Your task to perform on an android device: Do I have any events this weekend? Image 0: 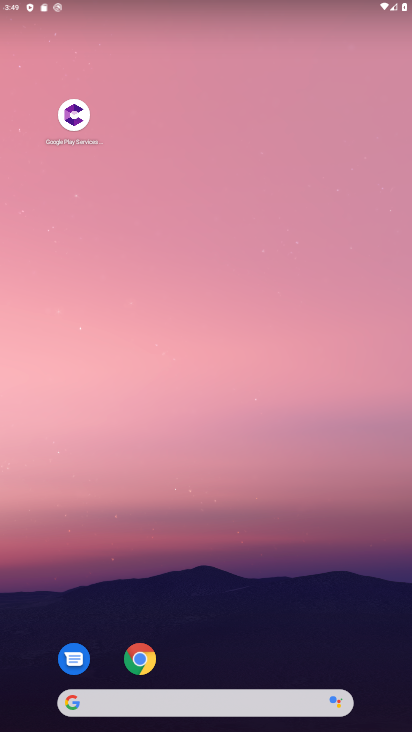
Step 0: drag from (104, 501) to (208, 259)
Your task to perform on an android device: Do I have any events this weekend? Image 1: 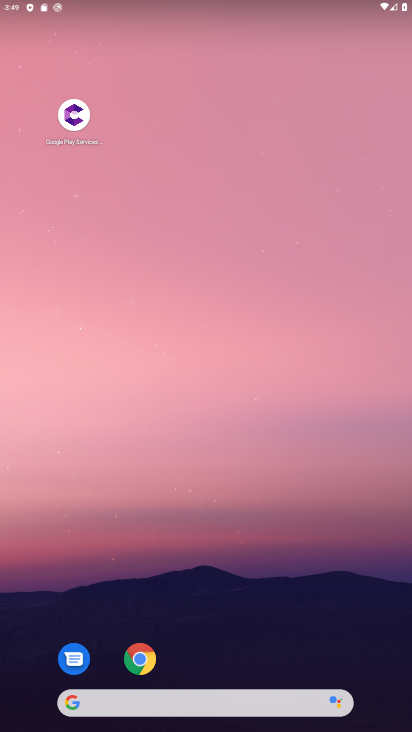
Step 1: drag from (33, 651) to (251, 18)
Your task to perform on an android device: Do I have any events this weekend? Image 2: 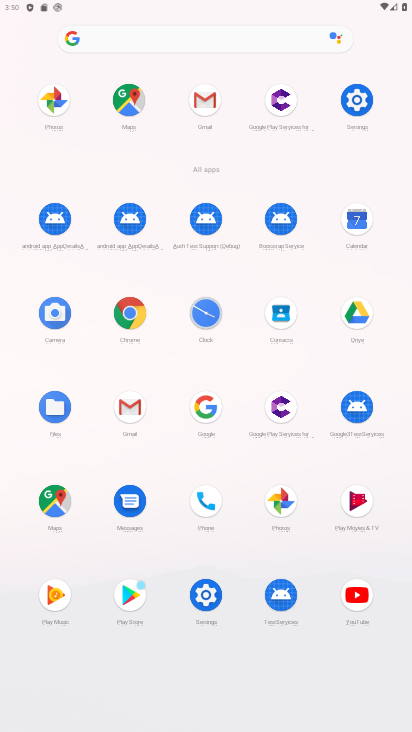
Step 2: click (350, 222)
Your task to perform on an android device: Do I have any events this weekend? Image 3: 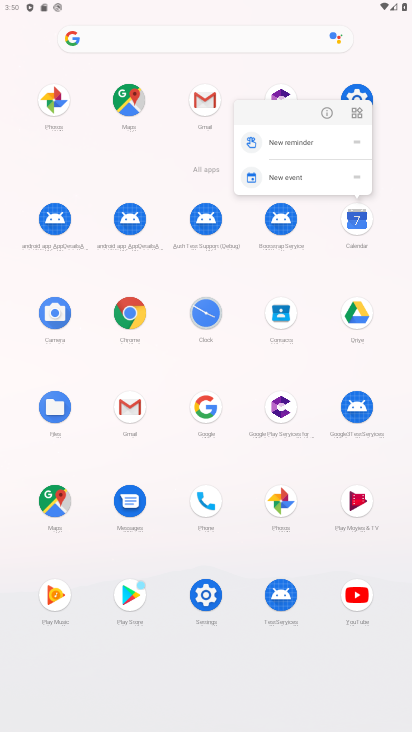
Step 3: click (354, 221)
Your task to perform on an android device: Do I have any events this weekend? Image 4: 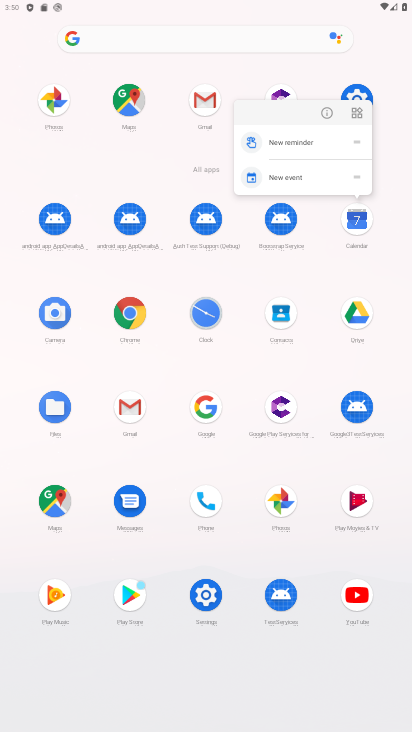
Step 4: click (354, 224)
Your task to perform on an android device: Do I have any events this weekend? Image 5: 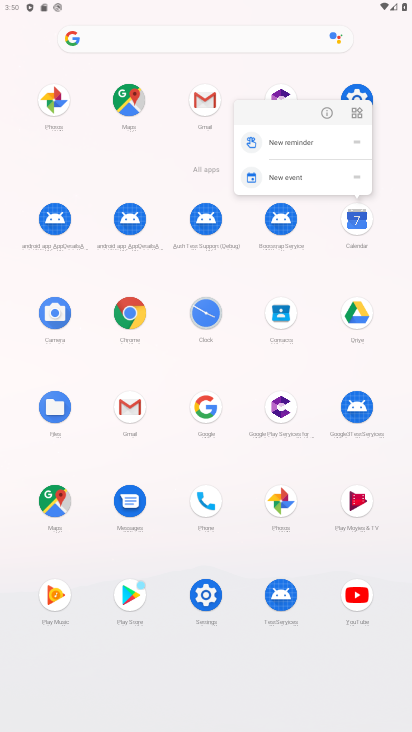
Step 5: click (353, 227)
Your task to perform on an android device: Do I have any events this weekend? Image 6: 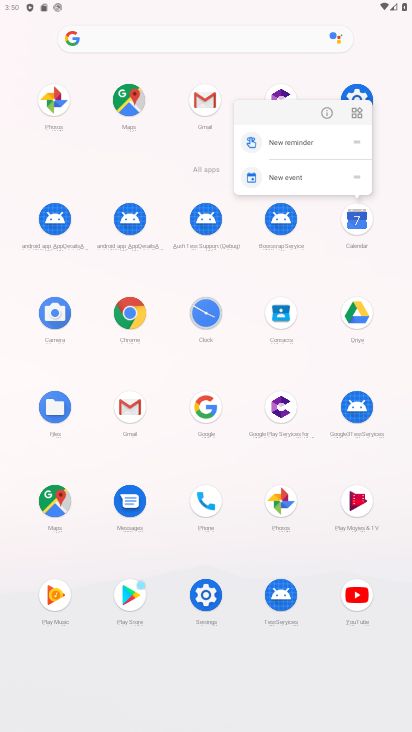
Step 6: click (352, 213)
Your task to perform on an android device: Do I have any events this weekend? Image 7: 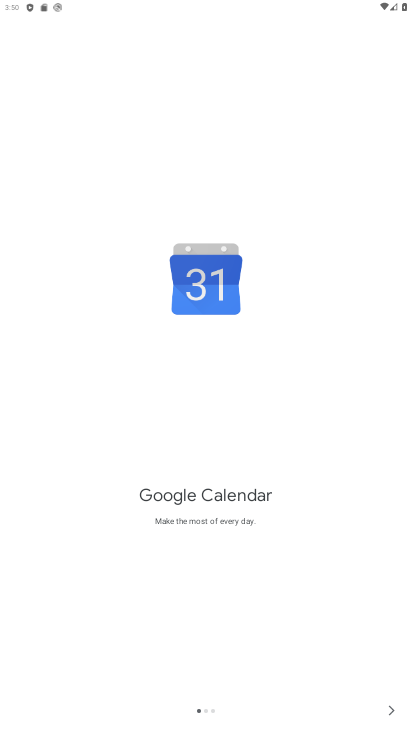
Step 7: click (394, 703)
Your task to perform on an android device: Do I have any events this weekend? Image 8: 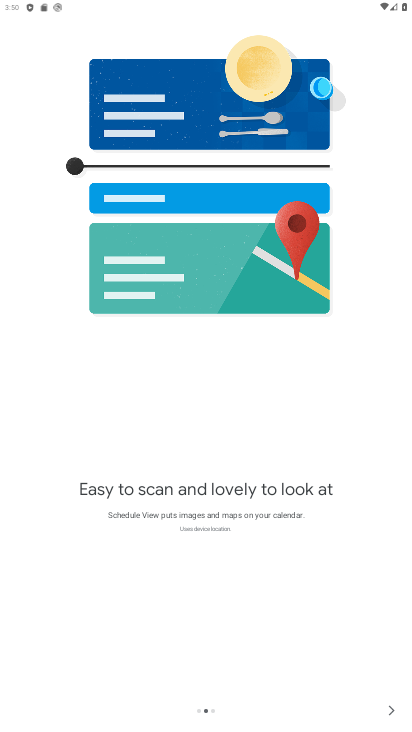
Step 8: click (391, 708)
Your task to perform on an android device: Do I have any events this weekend? Image 9: 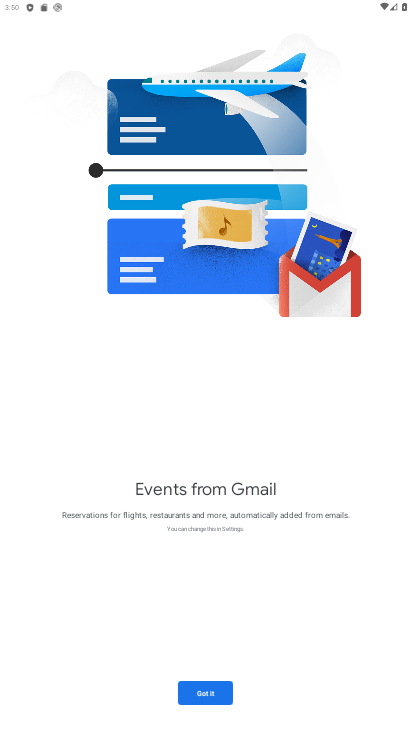
Step 9: click (214, 678)
Your task to perform on an android device: Do I have any events this weekend? Image 10: 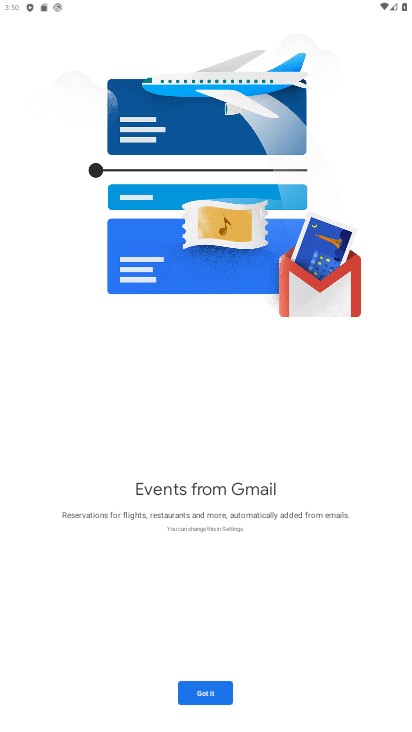
Step 10: click (201, 691)
Your task to perform on an android device: Do I have any events this weekend? Image 11: 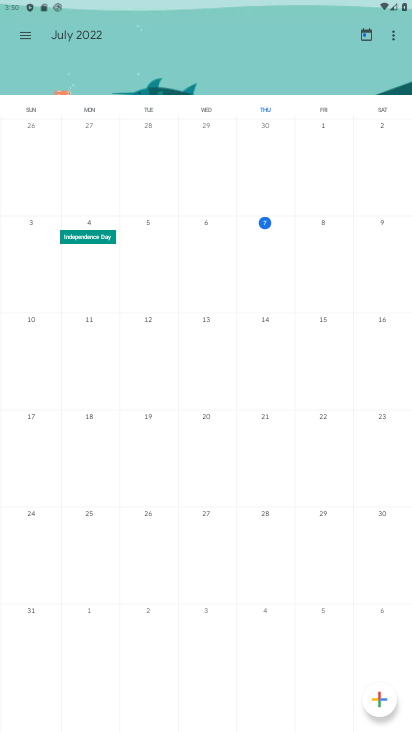
Step 11: click (21, 38)
Your task to perform on an android device: Do I have any events this weekend? Image 12: 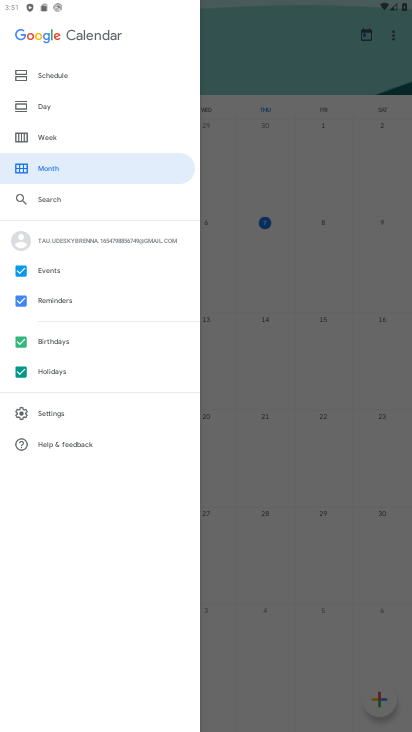
Step 12: click (48, 263)
Your task to perform on an android device: Do I have any events this weekend? Image 13: 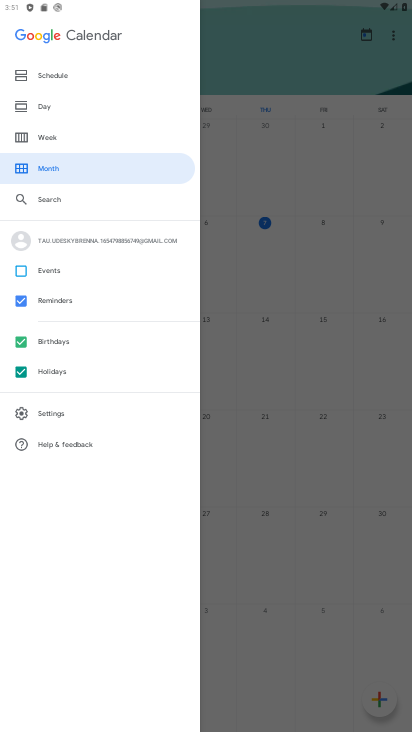
Step 13: click (49, 271)
Your task to perform on an android device: Do I have any events this weekend? Image 14: 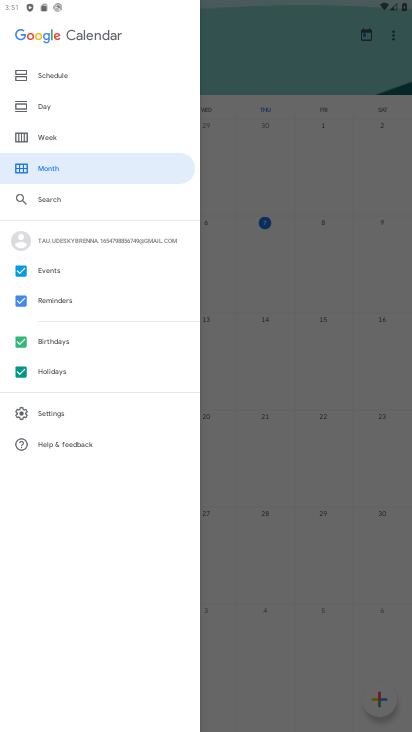
Step 14: click (326, 273)
Your task to perform on an android device: Do I have any events this weekend? Image 15: 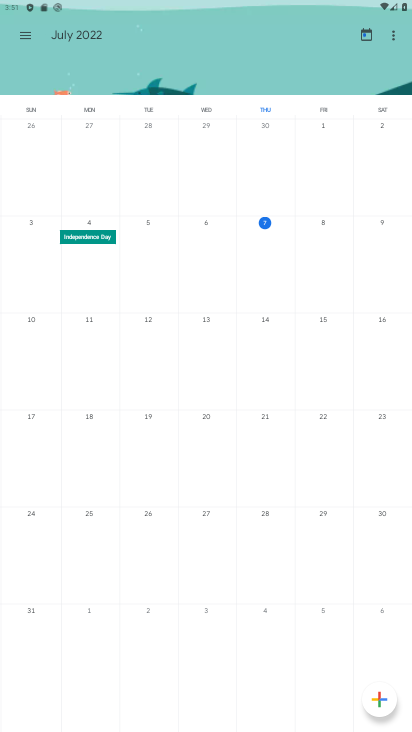
Step 15: task complete